Your task to perform on an android device: turn off sleep mode Image 0: 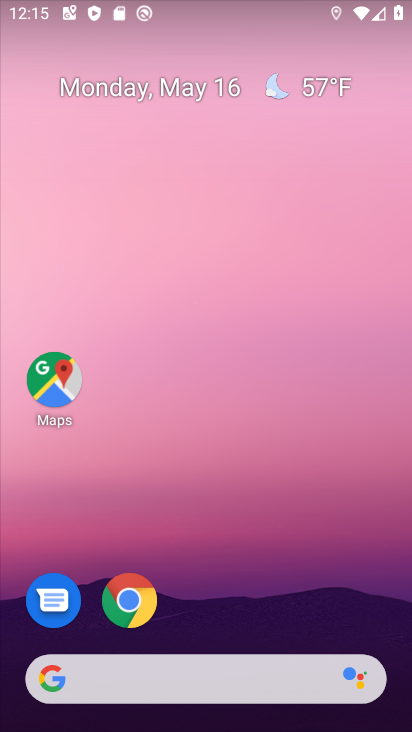
Step 0: drag from (186, 614) to (265, 36)
Your task to perform on an android device: turn off sleep mode Image 1: 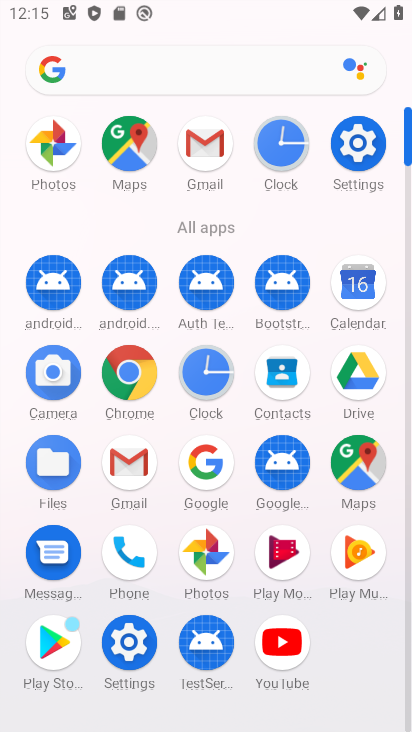
Step 1: click (357, 134)
Your task to perform on an android device: turn off sleep mode Image 2: 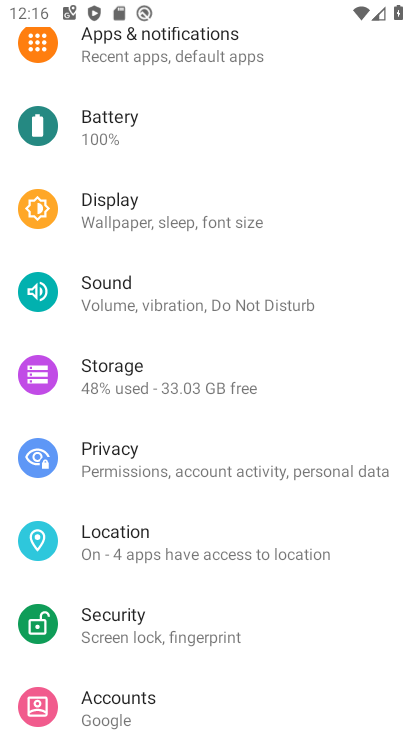
Step 2: drag from (197, 156) to (160, 692)
Your task to perform on an android device: turn off sleep mode Image 3: 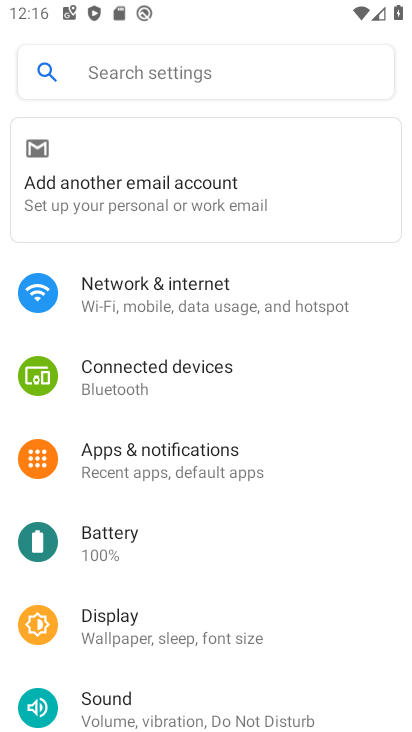
Step 3: click (107, 75)
Your task to perform on an android device: turn off sleep mode Image 4: 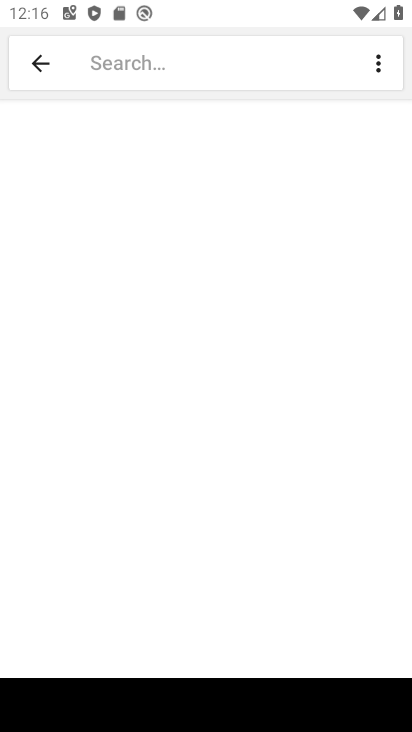
Step 4: type "sleep mode"
Your task to perform on an android device: turn off sleep mode Image 5: 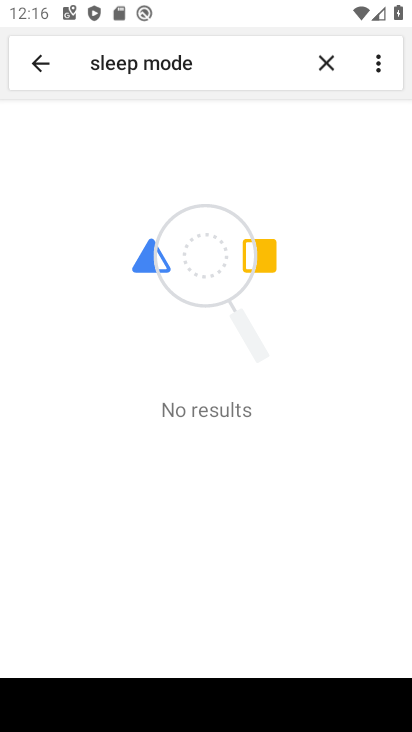
Step 5: task complete